Your task to perform on an android device: open sync settings in chrome Image 0: 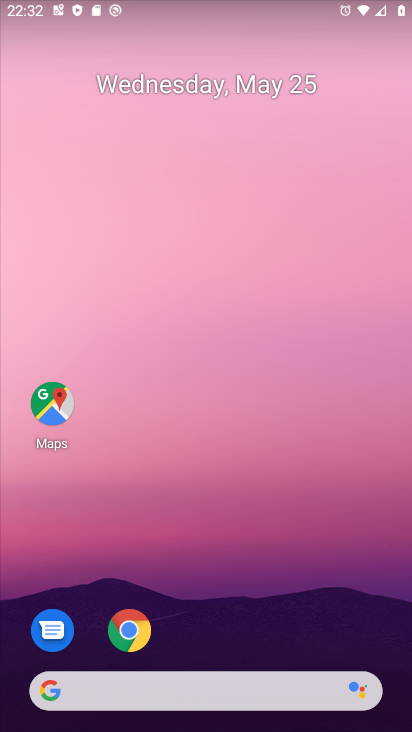
Step 0: click (133, 629)
Your task to perform on an android device: open sync settings in chrome Image 1: 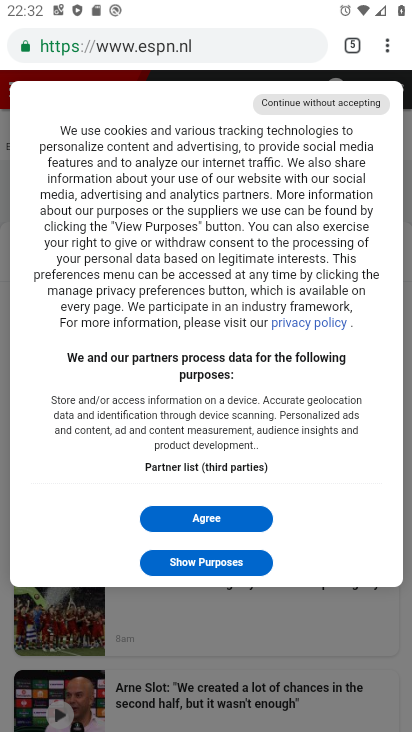
Step 1: click (382, 44)
Your task to perform on an android device: open sync settings in chrome Image 2: 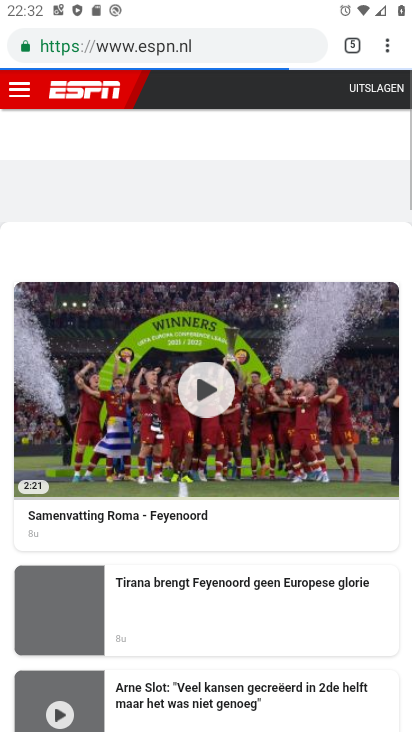
Step 2: click (388, 49)
Your task to perform on an android device: open sync settings in chrome Image 3: 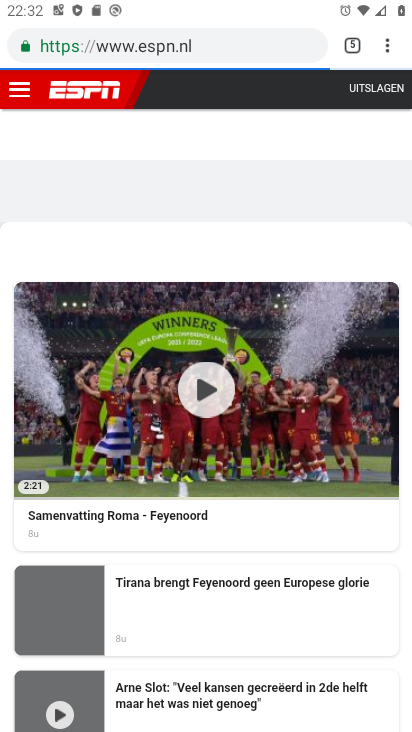
Step 3: drag from (388, 49) to (240, 539)
Your task to perform on an android device: open sync settings in chrome Image 4: 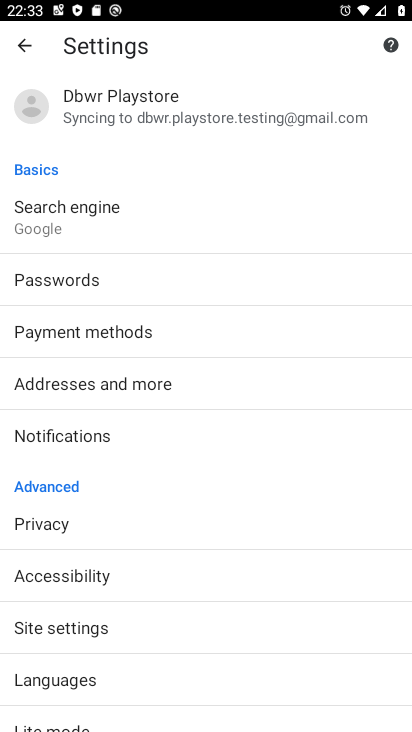
Step 4: click (203, 117)
Your task to perform on an android device: open sync settings in chrome Image 5: 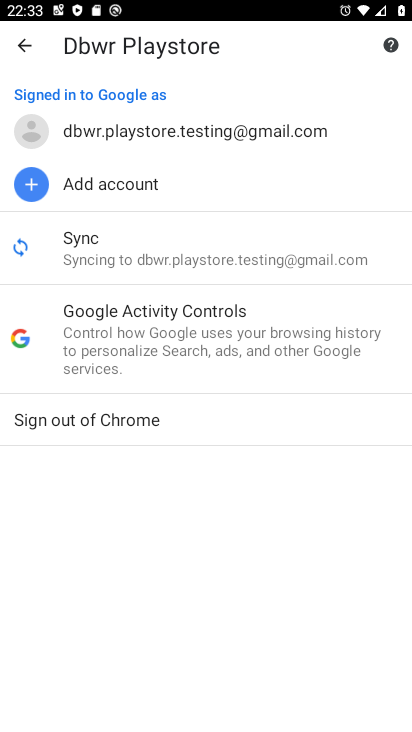
Step 5: click (137, 240)
Your task to perform on an android device: open sync settings in chrome Image 6: 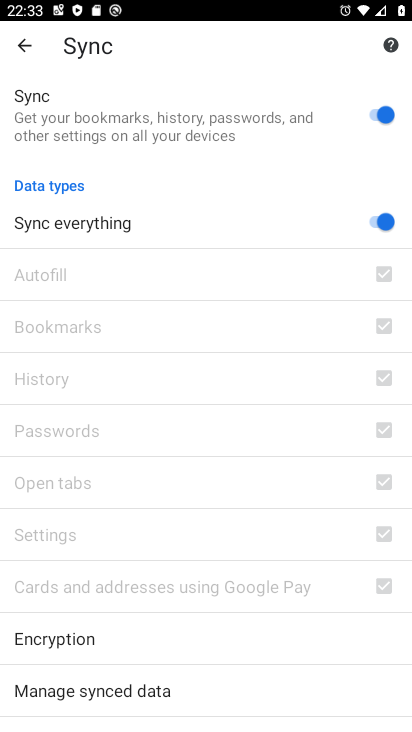
Step 6: task complete